Your task to perform on an android device: open app "Fetch Rewards" (install if not already installed) Image 0: 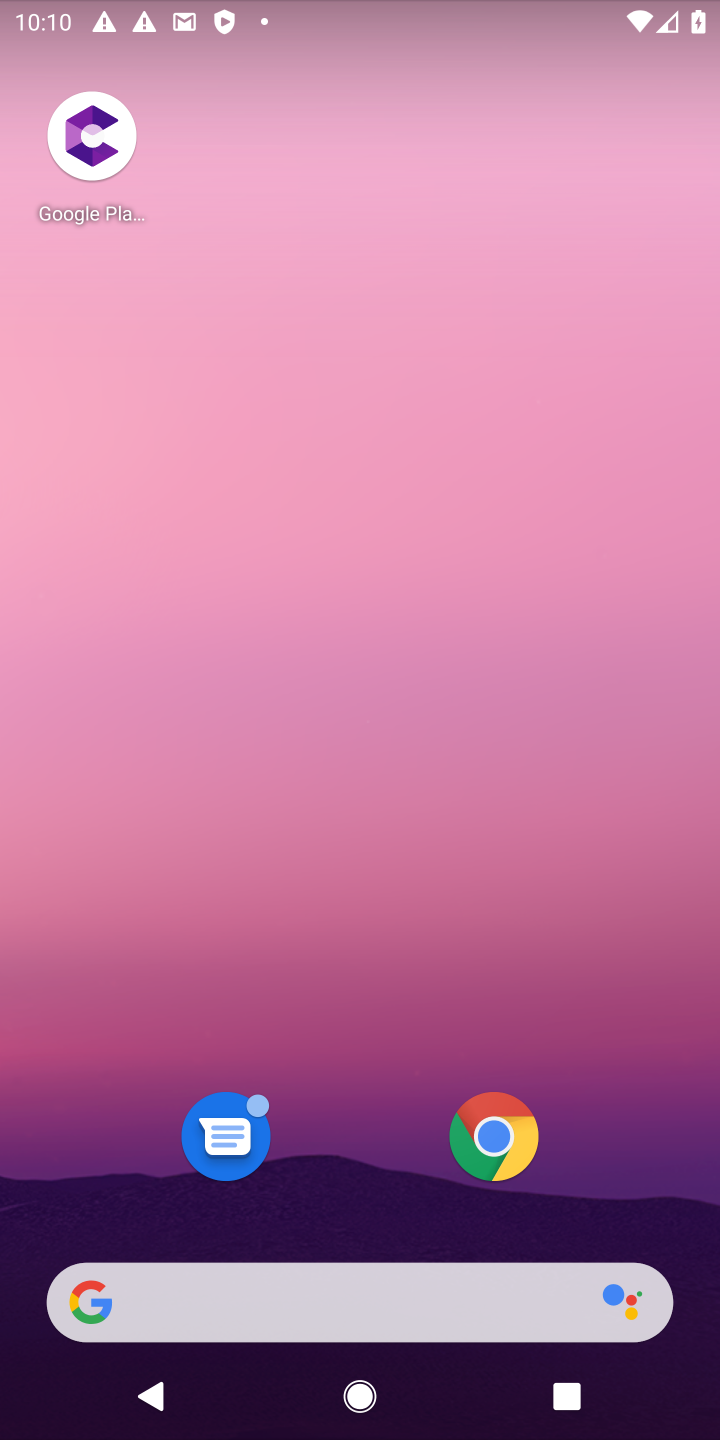
Step 0: drag from (415, 1295) to (358, 359)
Your task to perform on an android device: open app "Fetch Rewards" (install if not already installed) Image 1: 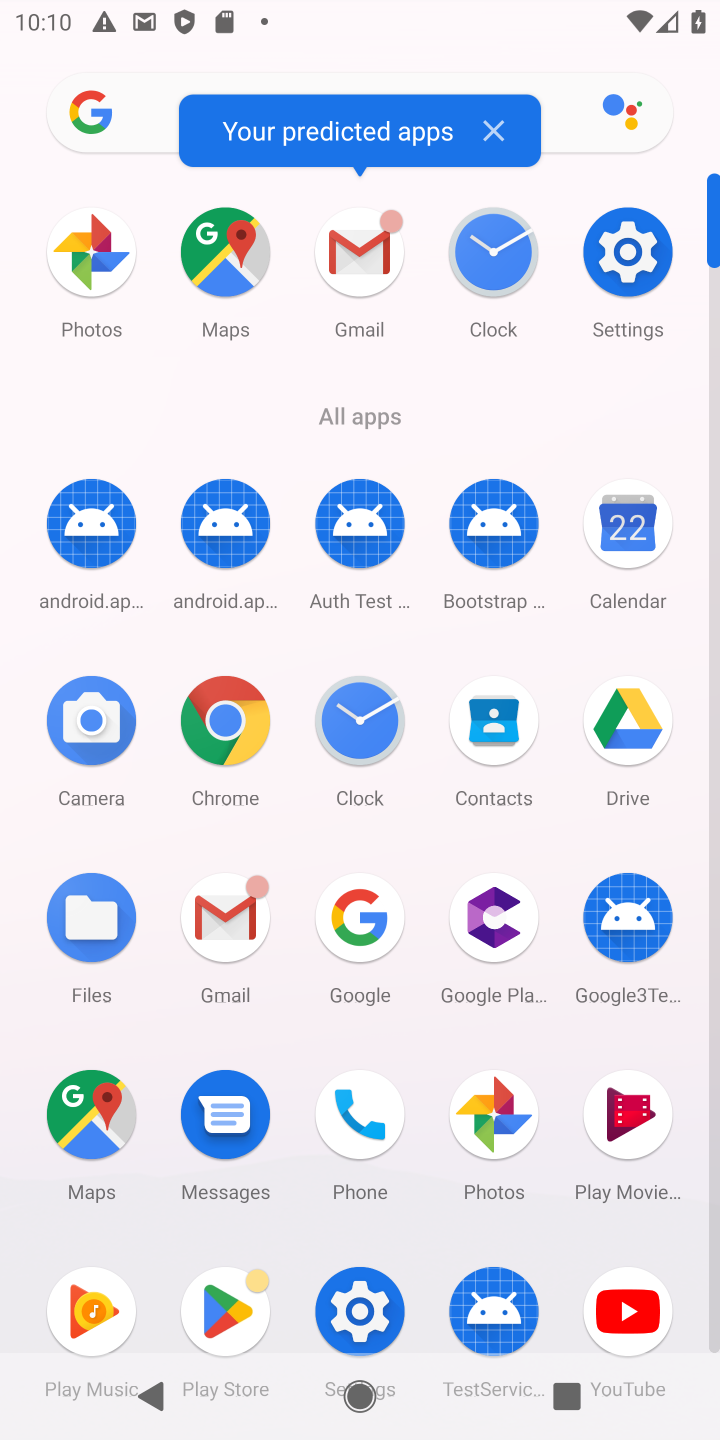
Step 1: click (247, 1307)
Your task to perform on an android device: open app "Fetch Rewards" (install if not already installed) Image 2: 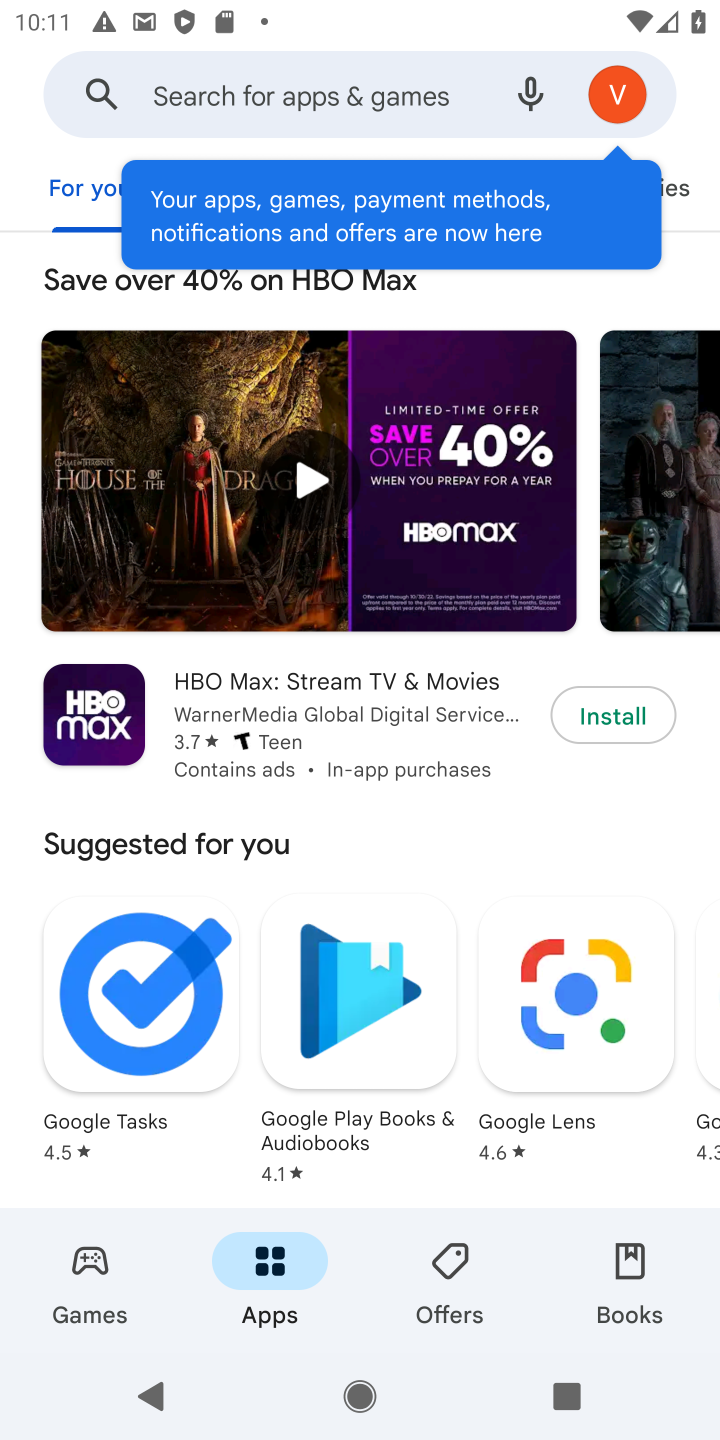
Step 2: click (372, 91)
Your task to perform on an android device: open app "Fetch Rewards" (install if not already installed) Image 3: 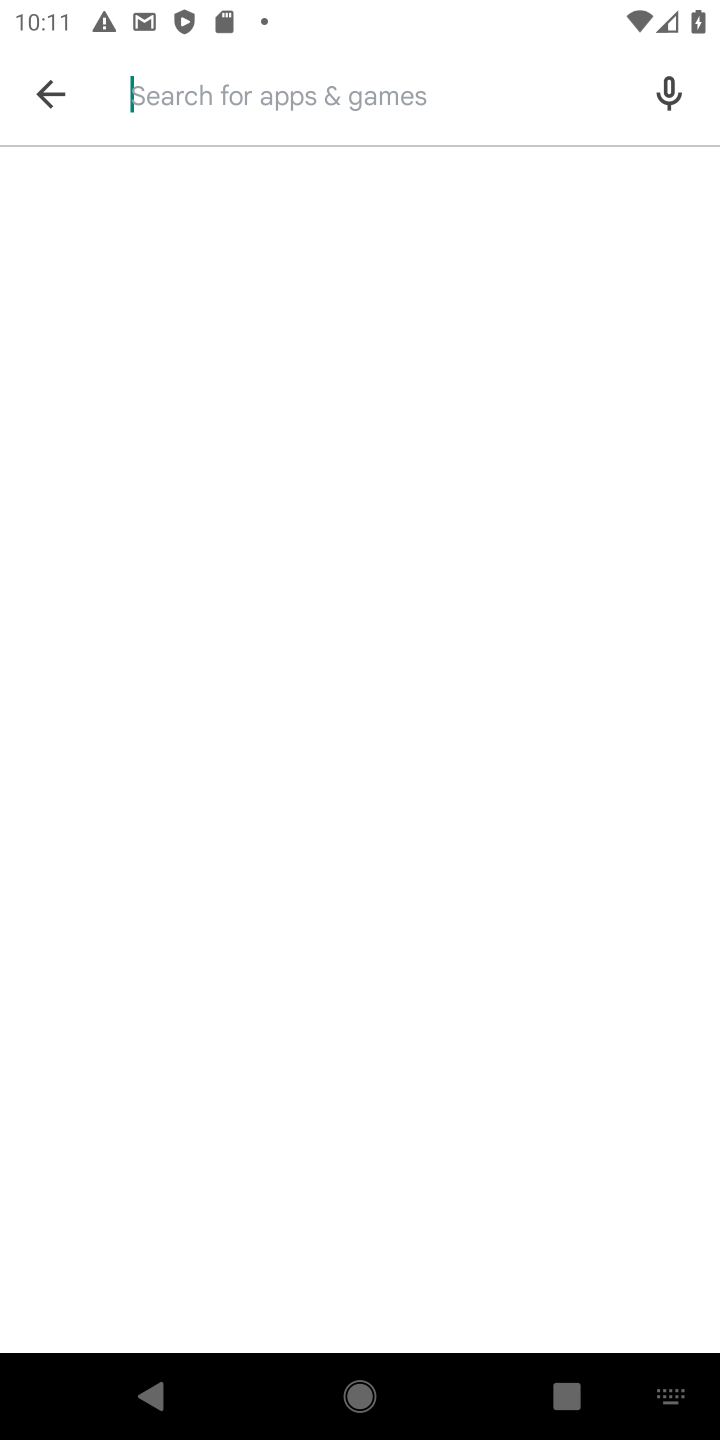
Step 3: type "fetch rewards"
Your task to perform on an android device: open app "Fetch Rewards" (install if not already installed) Image 4: 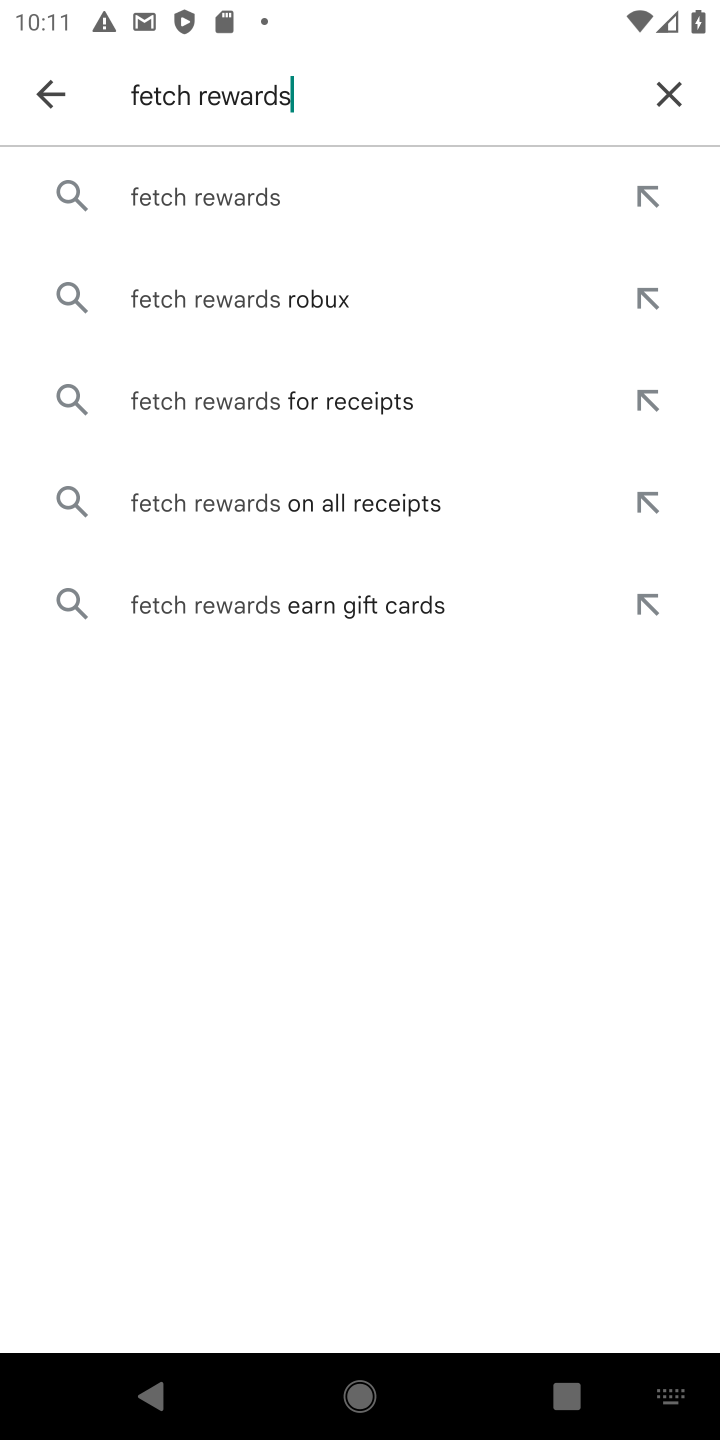
Step 4: click (236, 203)
Your task to perform on an android device: open app "Fetch Rewards" (install if not already installed) Image 5: 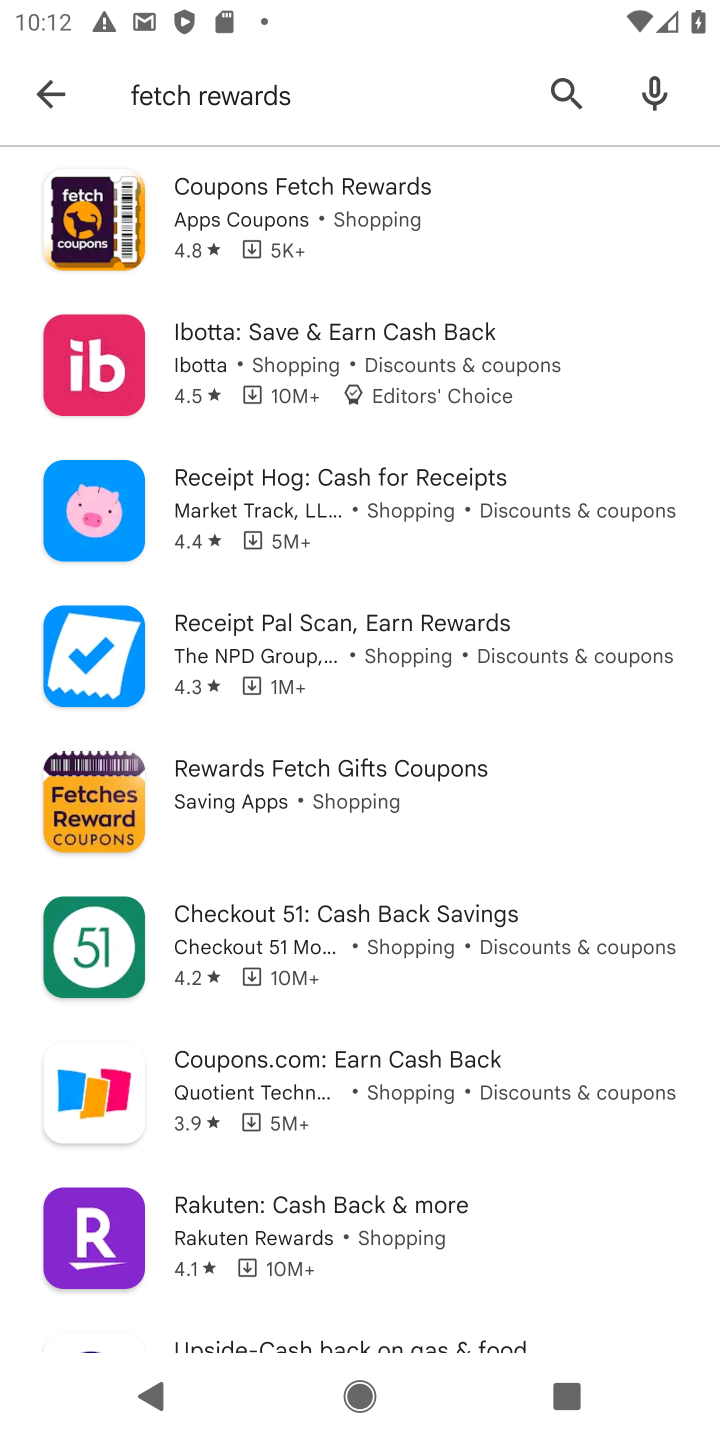
Step 5: task complete